Your task to perform on an android device: Open calendar and show me the first week of next month Image 0: 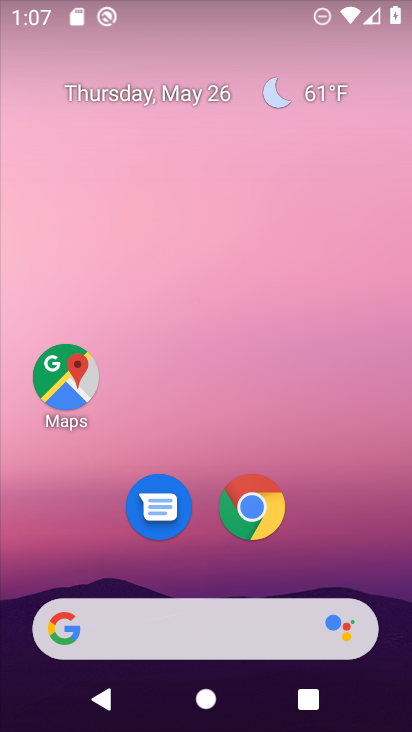
Step 0: drag from (345, 510) to (221, 130)
Your task to perform on an android device: Open calendar and show me the first week of next month Image 1: 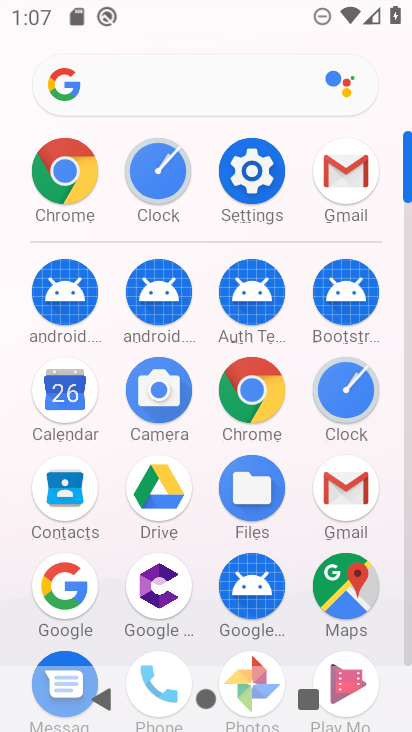
Step 1: click (53, 388)
Your task to perform on an android device: Open calendar and show me the first week of next month Image 2: 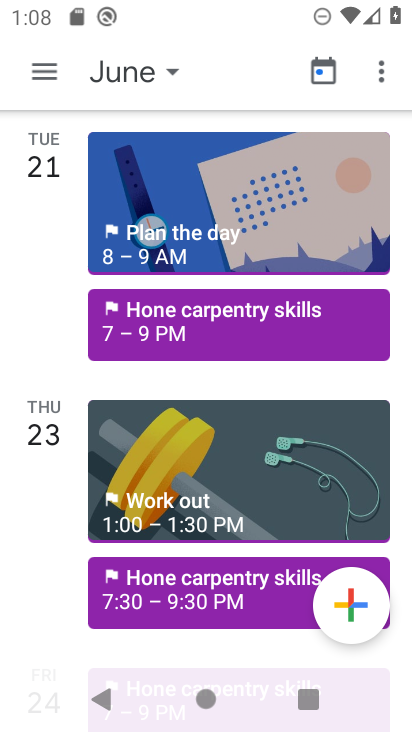
Step 2: task complete